Your task to perform on an android device: open device folders in google photos Image 0: 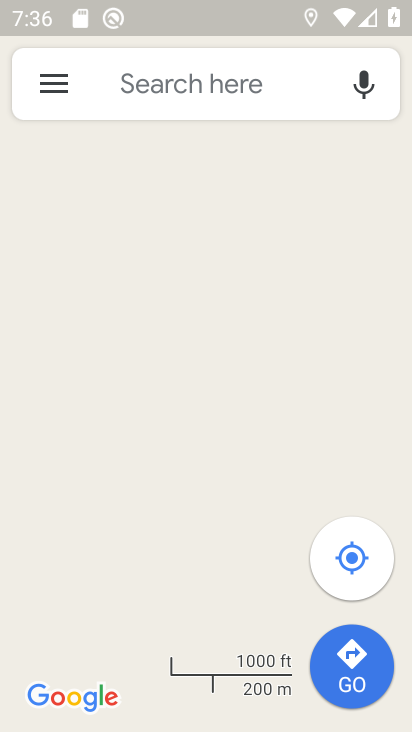
Step 0: press home button
Your task to perform on an android device: open device folders in google photos Image 1: 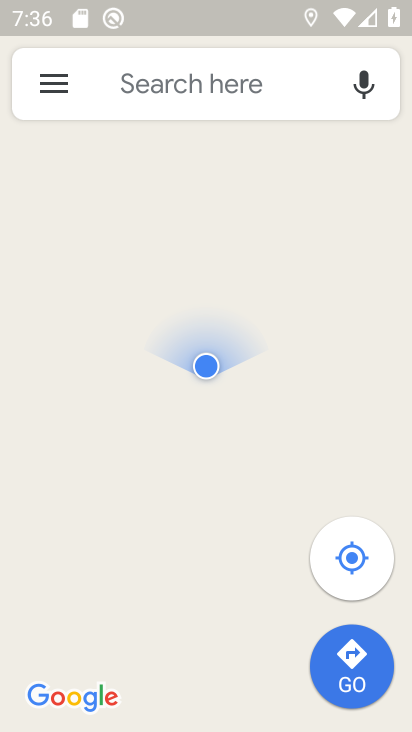
Step 1: press home button
Your task to perform on an android device: open device folders in google photos Image 2: 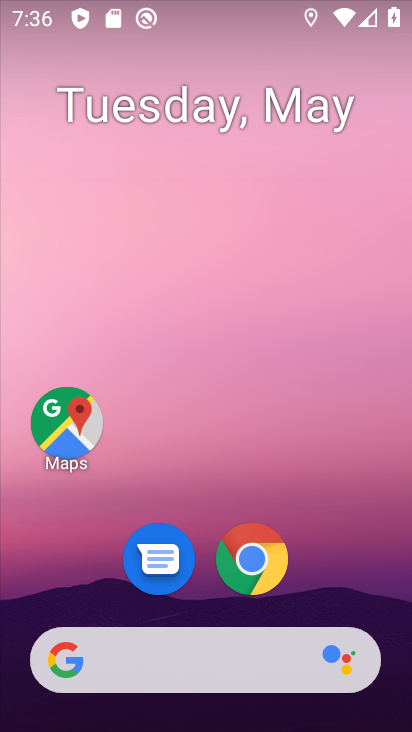
Step 2: drag from (331, 319) to (335, 21)
Your task to perform on an android device: open device folders in google photos Image 3: 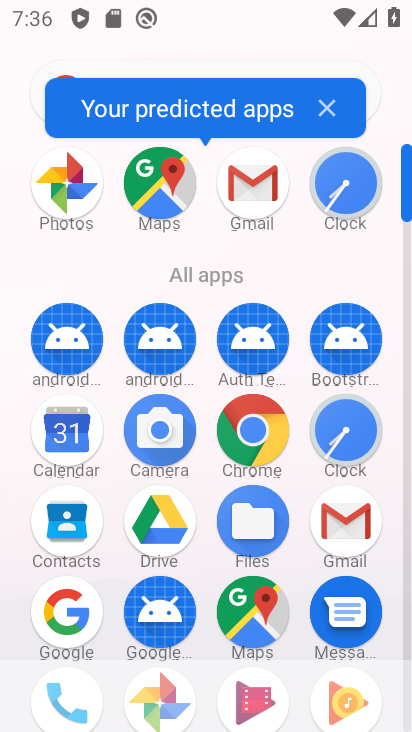
Step 3: drag from (398, 585) to (393, 287)
Your task to perform on an android device: open device folders in google photos Image 4: 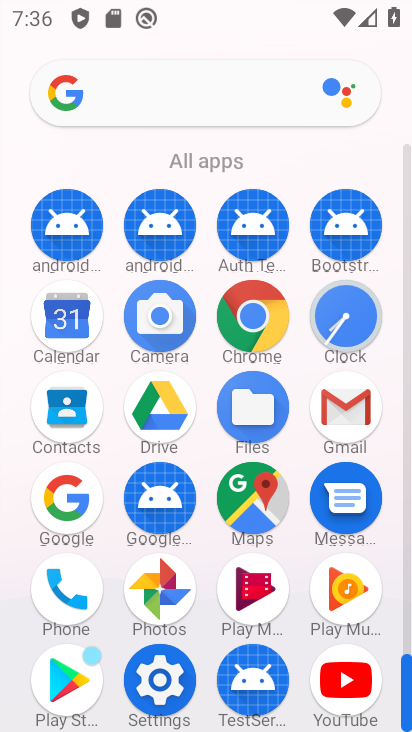
Step 4: click (148, 595)
Your task to perform on an android device: open device folders in google photos Image 5: 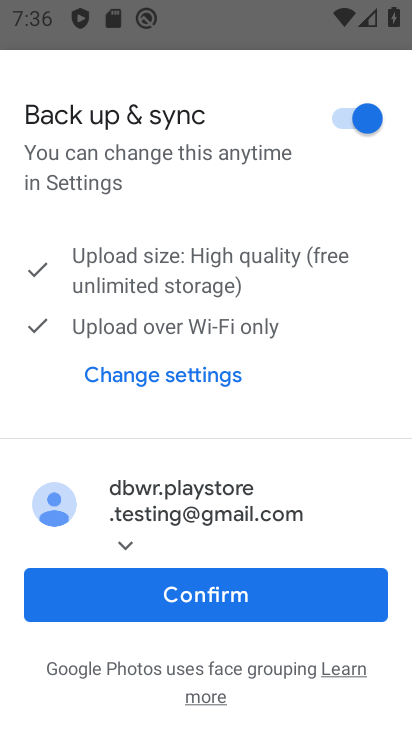
Step 5: click (185, 604)
Your task to perform on an android device: open device folders in google photos Image 6: 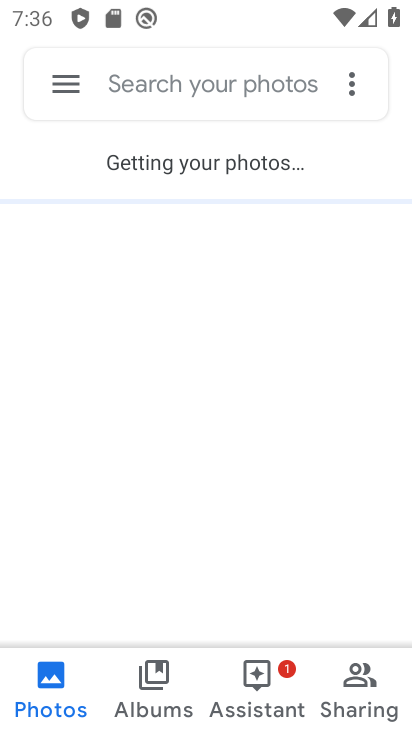
Step 6: click (61, 98)
Your task to perform on an android device: open device folders in google photos Image 7: 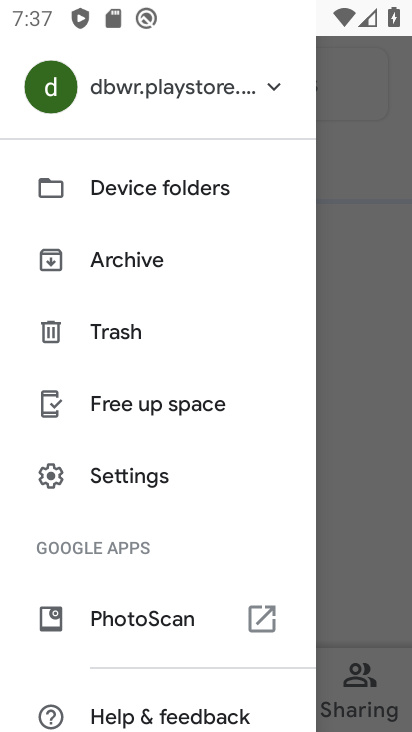
Step 7: click (115, 177)
Your task to perform on an android device: open device folders in google photos Image 8: 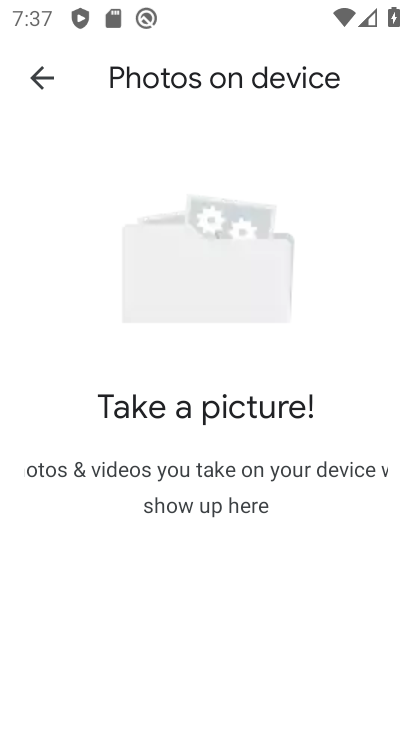
Step 8: task complete